Your task to perform on an android device: allow cookies in the chrome app Image 0: 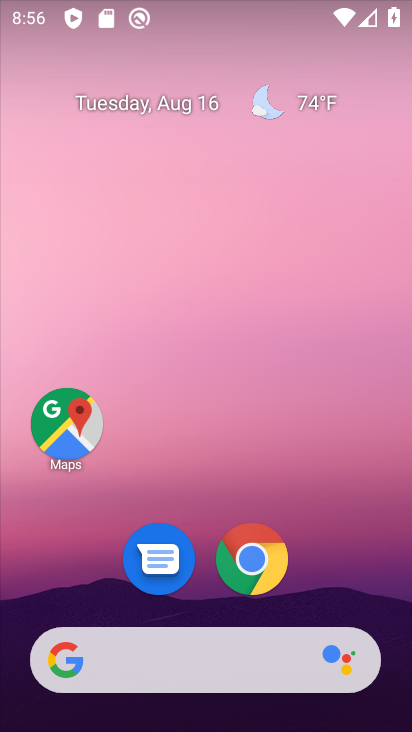
Step 0: click (248, 559)
Your task to perform on an android device: allow cookies in the chrome app Image 1: 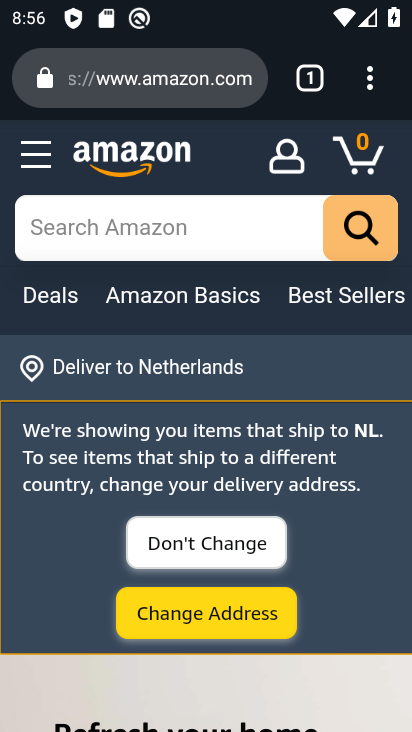
Step 1: click (385, 85)
Your task to perform on an android device: allow cookies in the chrome app Image 2: 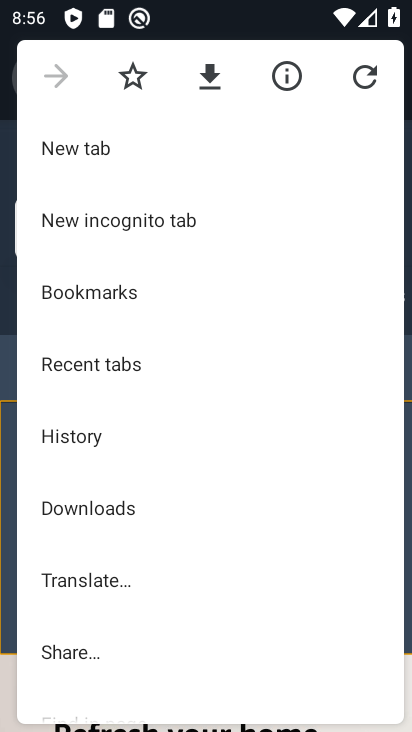
Step 2: drag from (145, 603) to (227, 469)
Your task to perform on an android device: allow cookies in the chrome app Image 3: 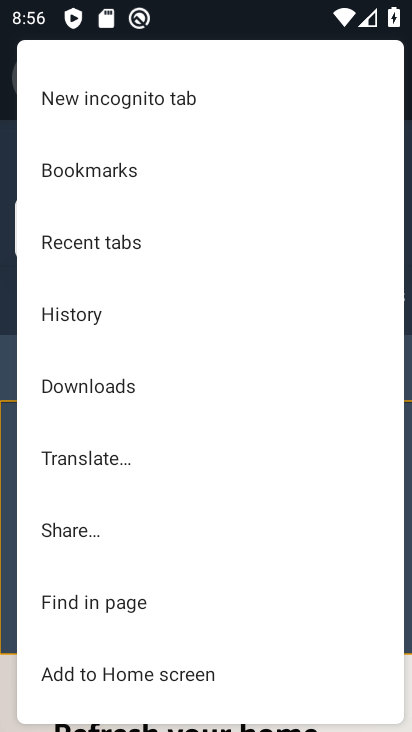
Step 3: drag from (168, 616) to (238, 461)
Your task to perform on an android device: allow cookies in the chrome app Image 4: 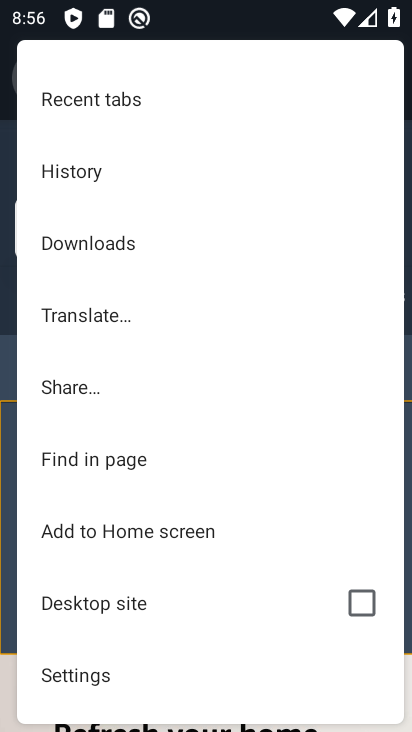
Step 4: click (100, 667)
Your task to perform on an android device: allow cookies in the chrome app Image 5: 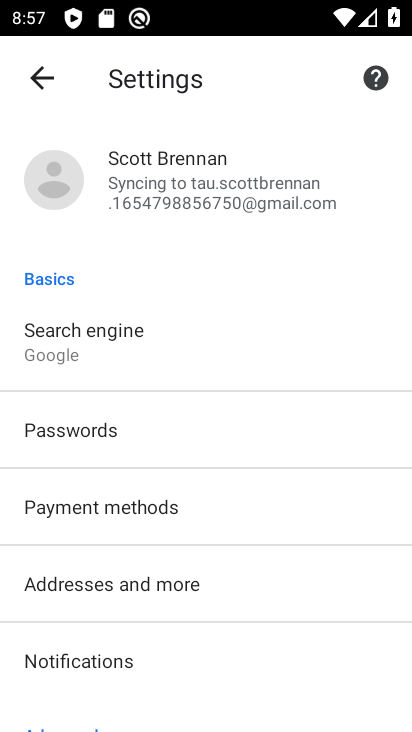
Step 5: drag from (181, 631) to (228, 506)
Your task to perform on an android device: allow cookies in the chrome app Image 6: 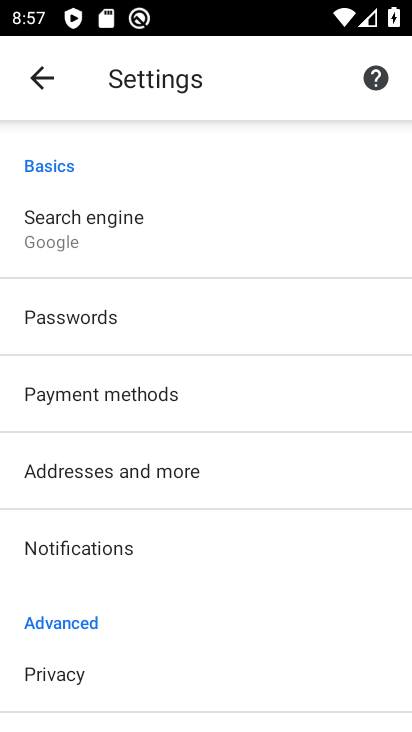
Step 6: drag from (114, 634) to (161, 508)
Your task to perform on an android device: allow cookies in the chrome app Image 7: 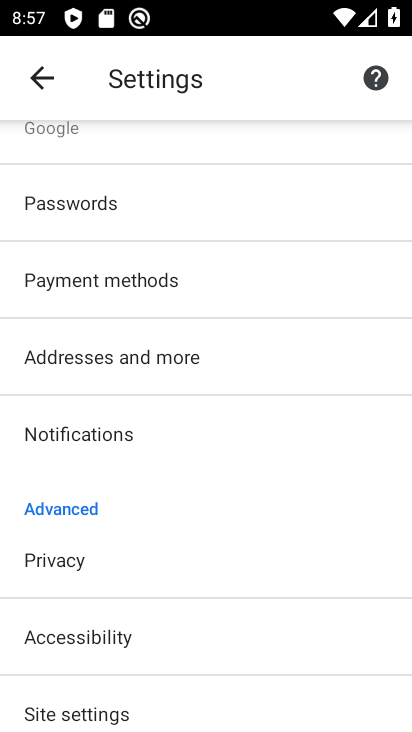
Step 7: drag from (160, 681) to (203, 555)
Your task to perform on an android device: allow cookies in the chrome app Image 8: 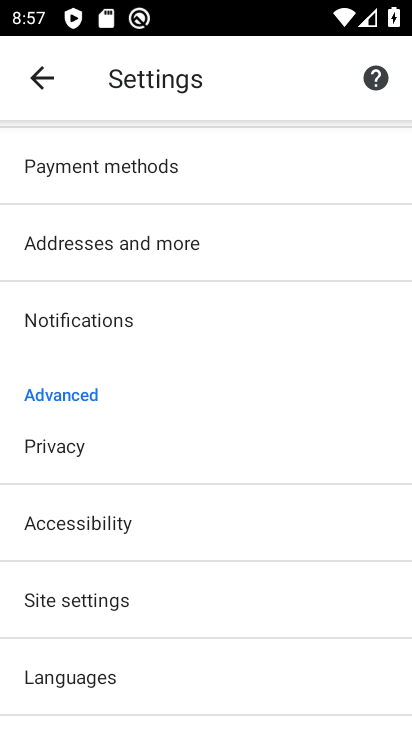
Step 8: click (118, 599)
Your task to perform on an android device: allow cookies in the chrome app Image 9: 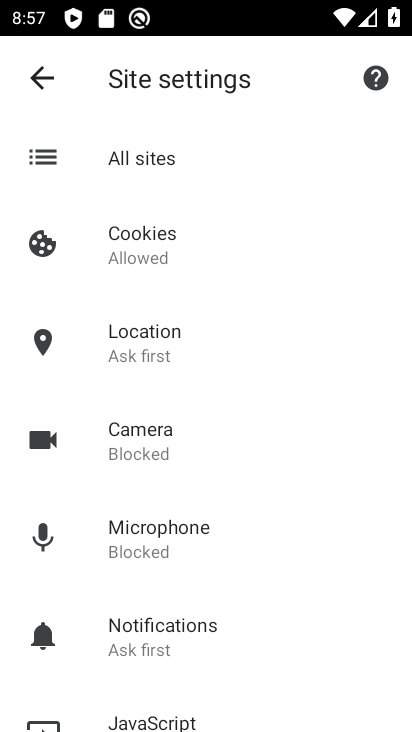
Step 9: click (168, 256)
Your task to perform on an android device: allow cookies in the chrome app Image 10: 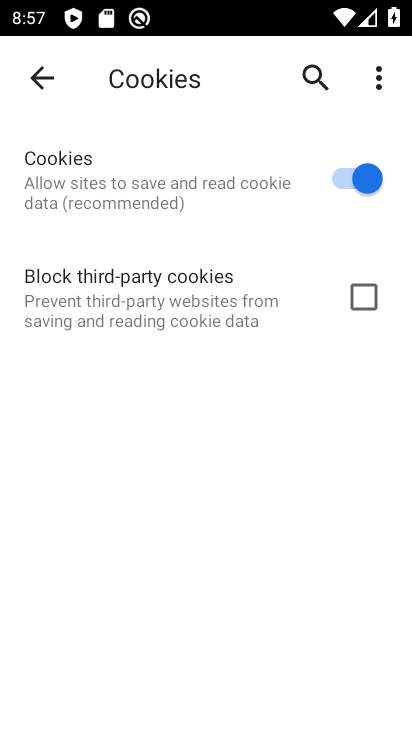
Step 10: click (366, 304)
Your task to perform on an android device: allow cookies in the chrome app Image 11: 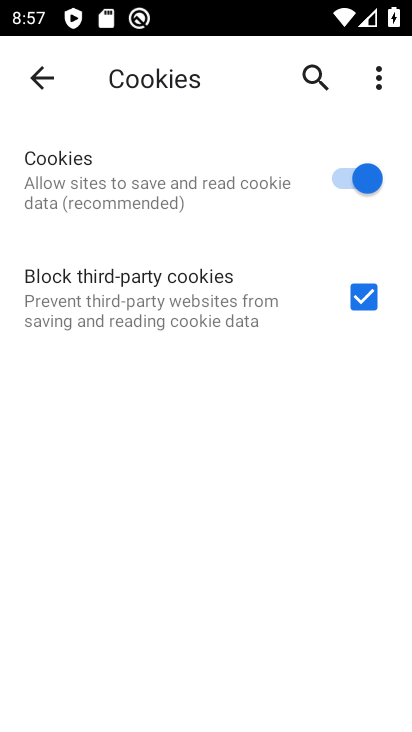
Step 11: task complete